Your task to perform on an android device: turn on bluetooth scan Image 0: 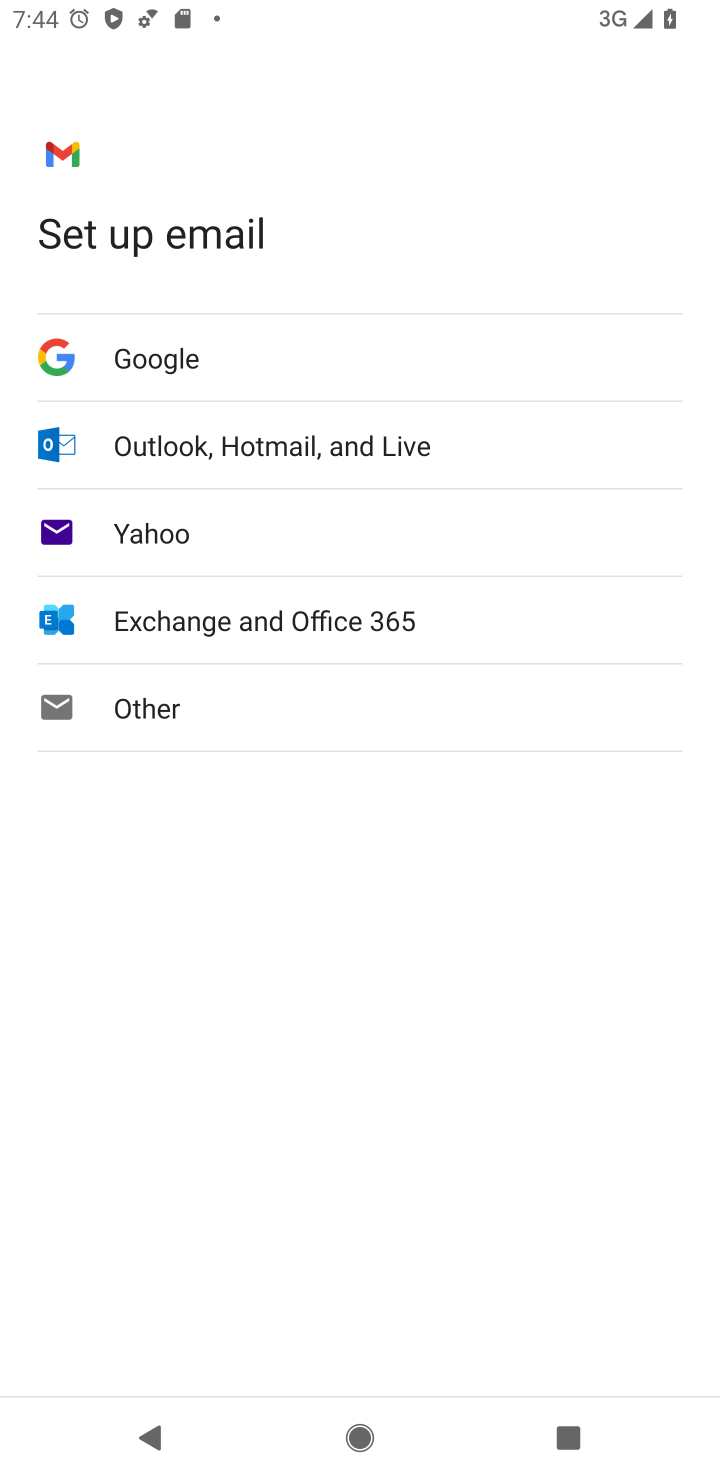
Step 0: press home button
Your task to perform on an android device: turn on bluetooth scan Image 1: 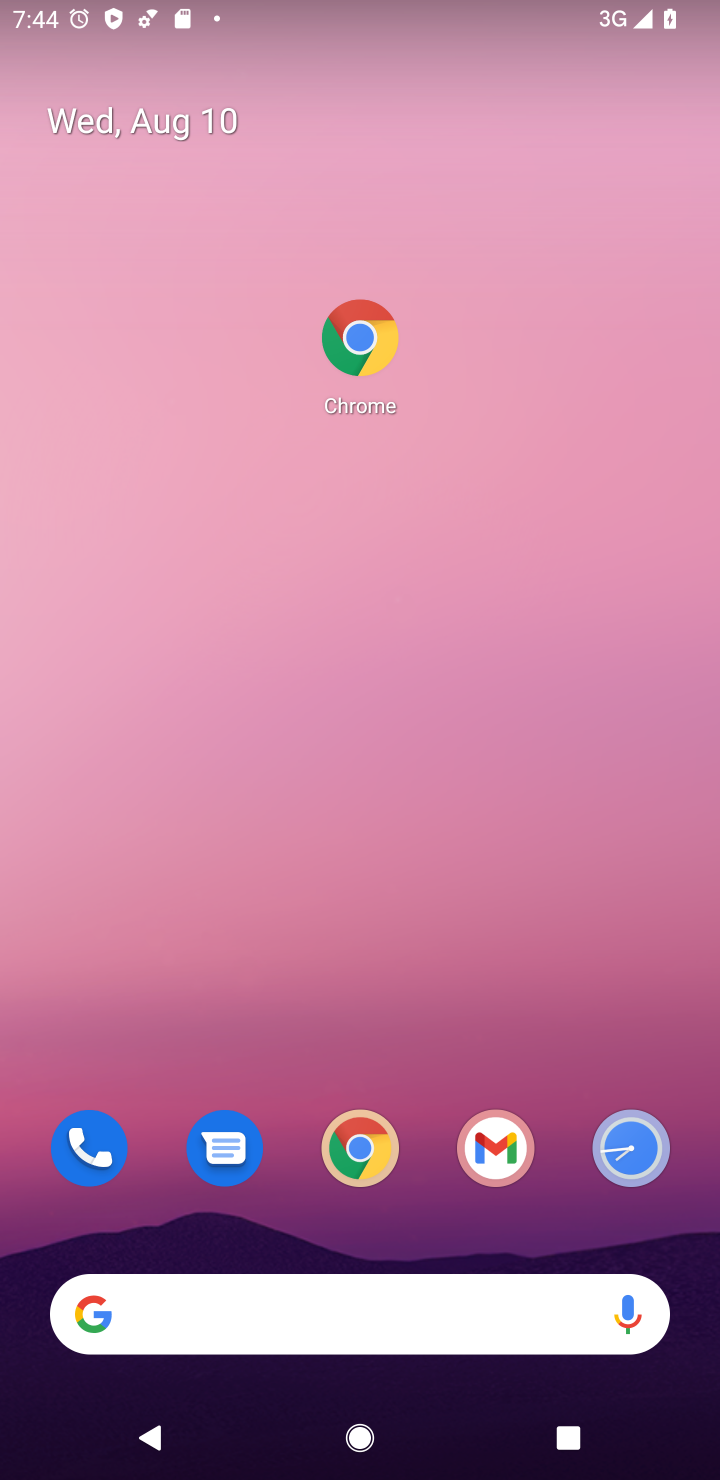
Step 1: drag from (279, 1246) to (361, 146)
Your task to perform on an android device: turn on bluetooth scan Image 2: 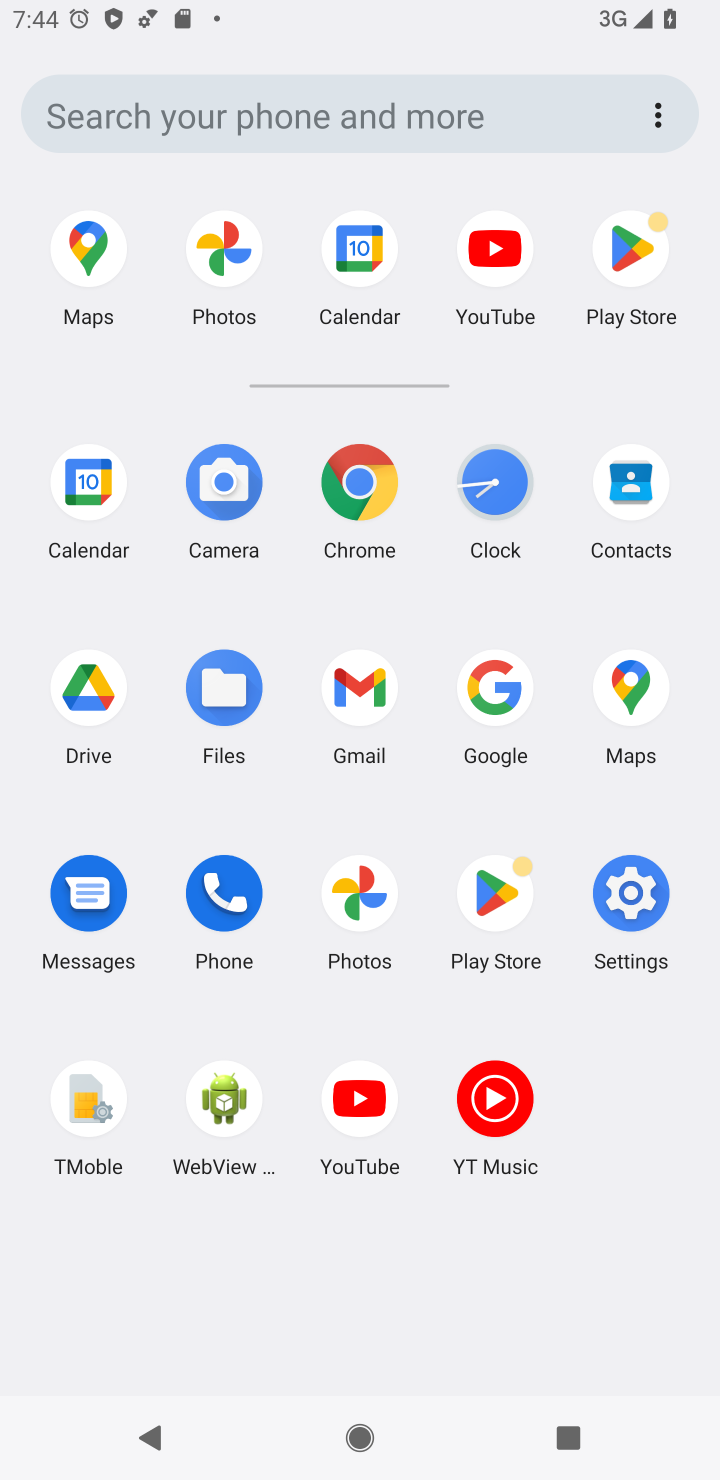
Step 2: click (634, 911)
Your task to perform on an android device: turn on bluetooth scan Image 3: 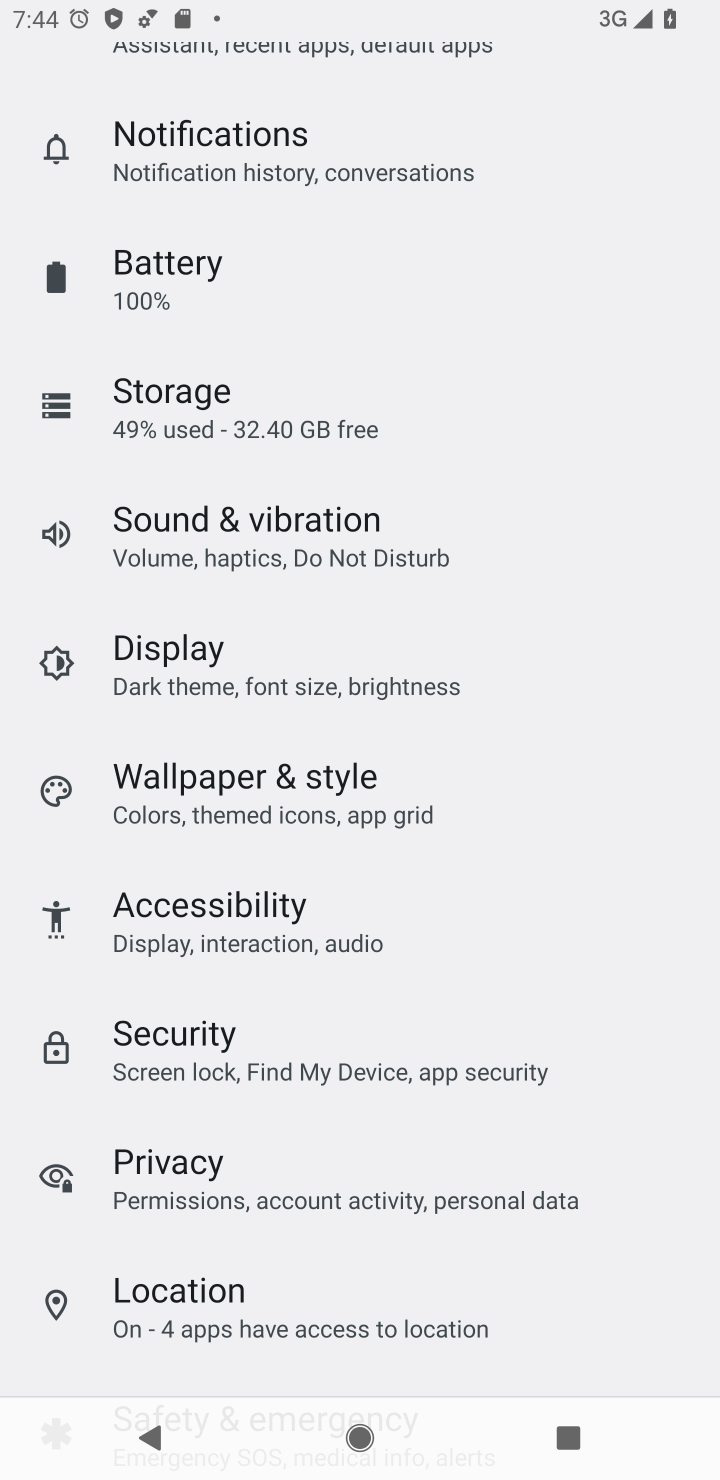
Step 3: drag from (406, 262) to (510, 1193)
Your task to perform on an android device: turn on bluetooth scan Image 4: 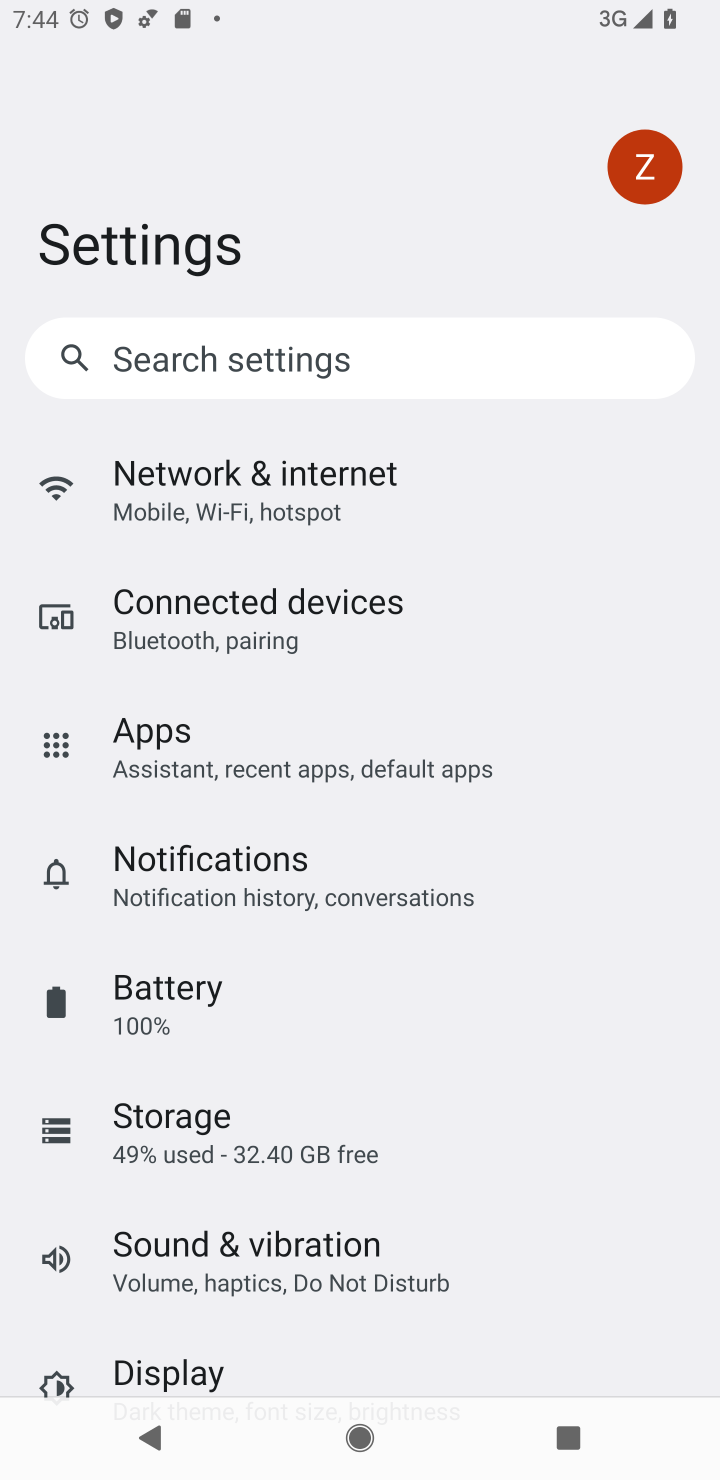
Step 4: click (239, 598)
Your task to perform on an android device: turn on bluetooth scan Image 5: 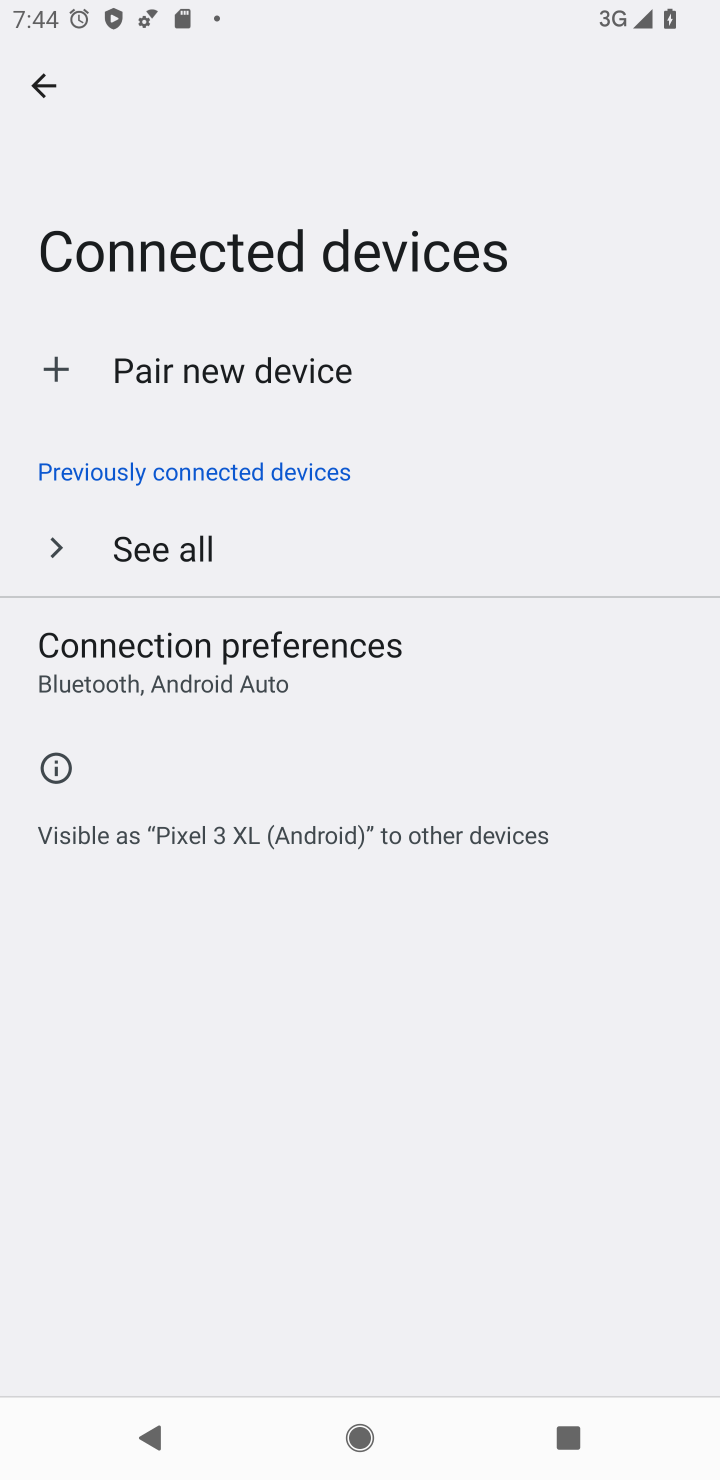
Step 5: click (28, 76)
Your task to perform on an android device: turn on bluetooth scan Image 6: 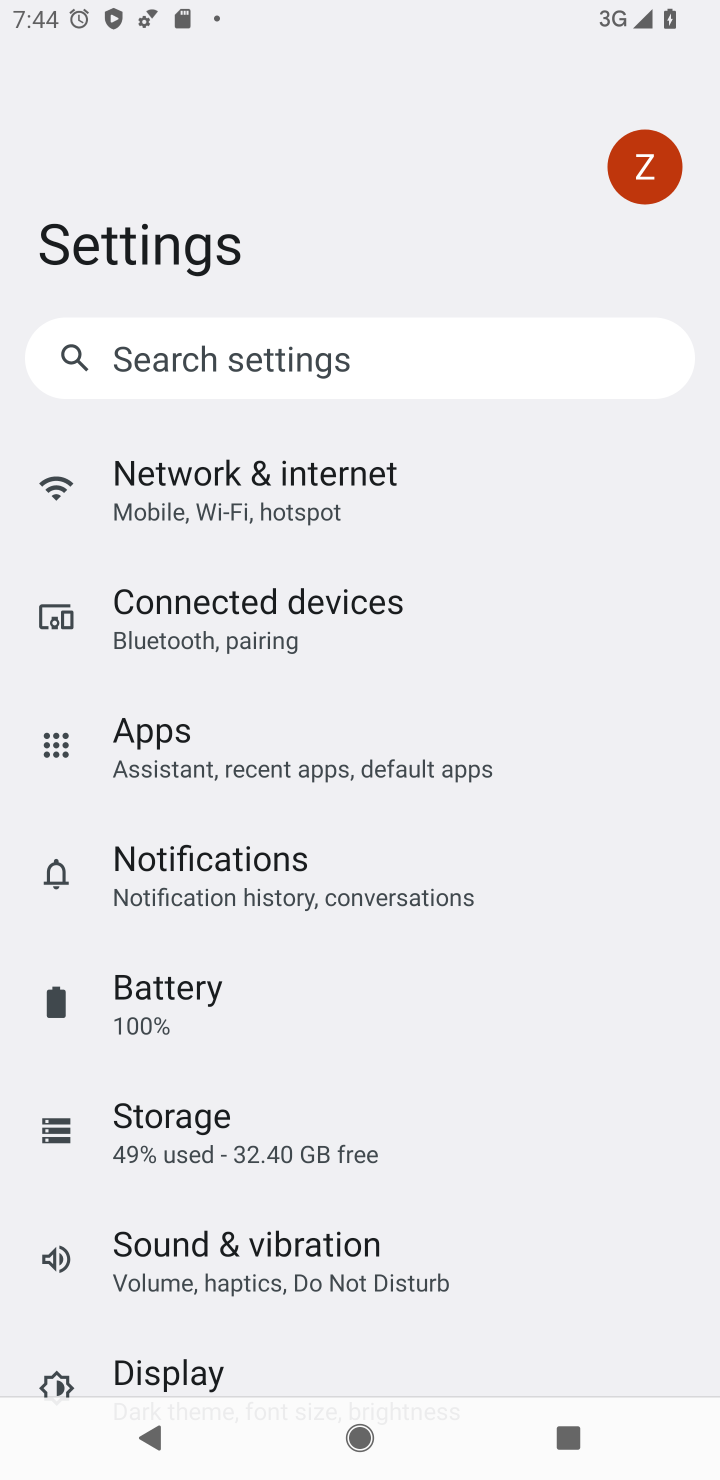
Step 6: click (275, 355)
Your task to perform on an android device: turn on bluetooth scan Image 7: 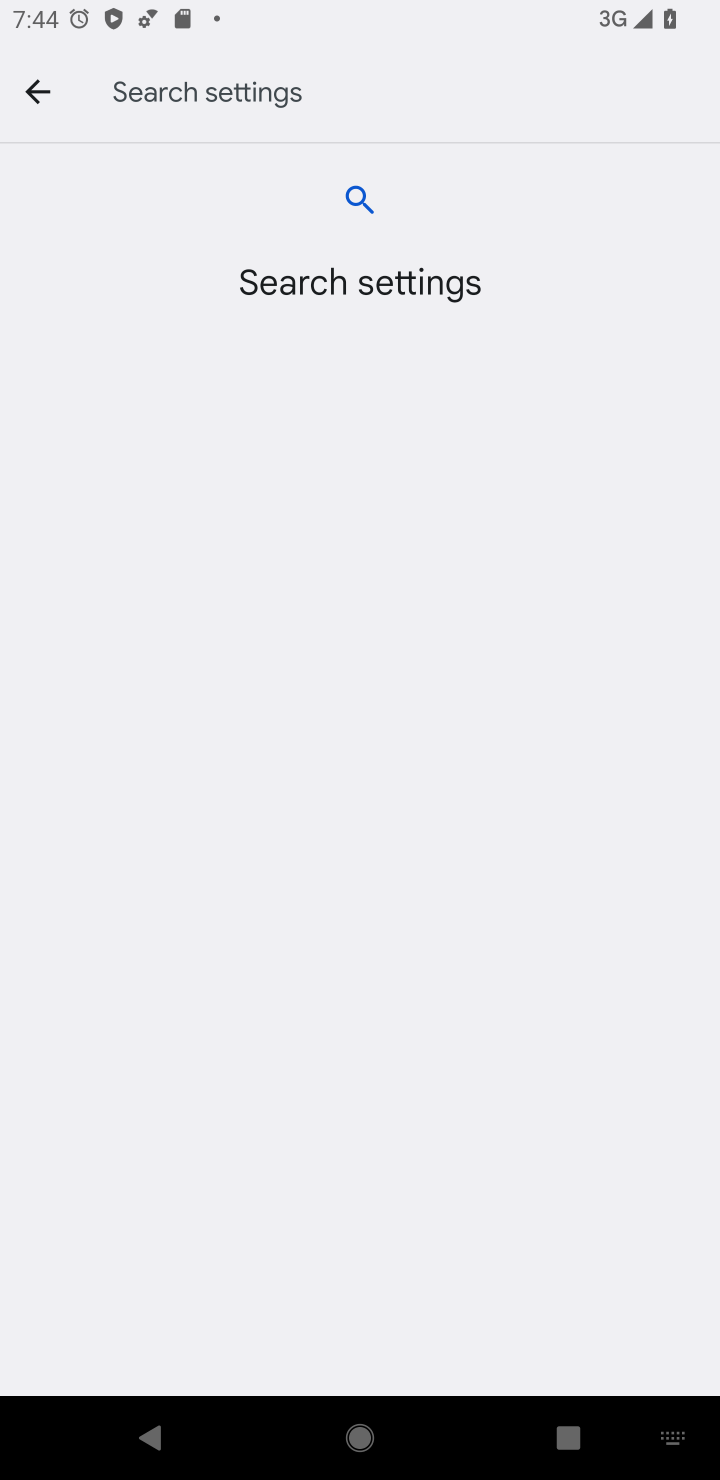
Step 7: type "bluetooth scan"
Your task to perform on an android device: turn on bluetooth scan Image 8: 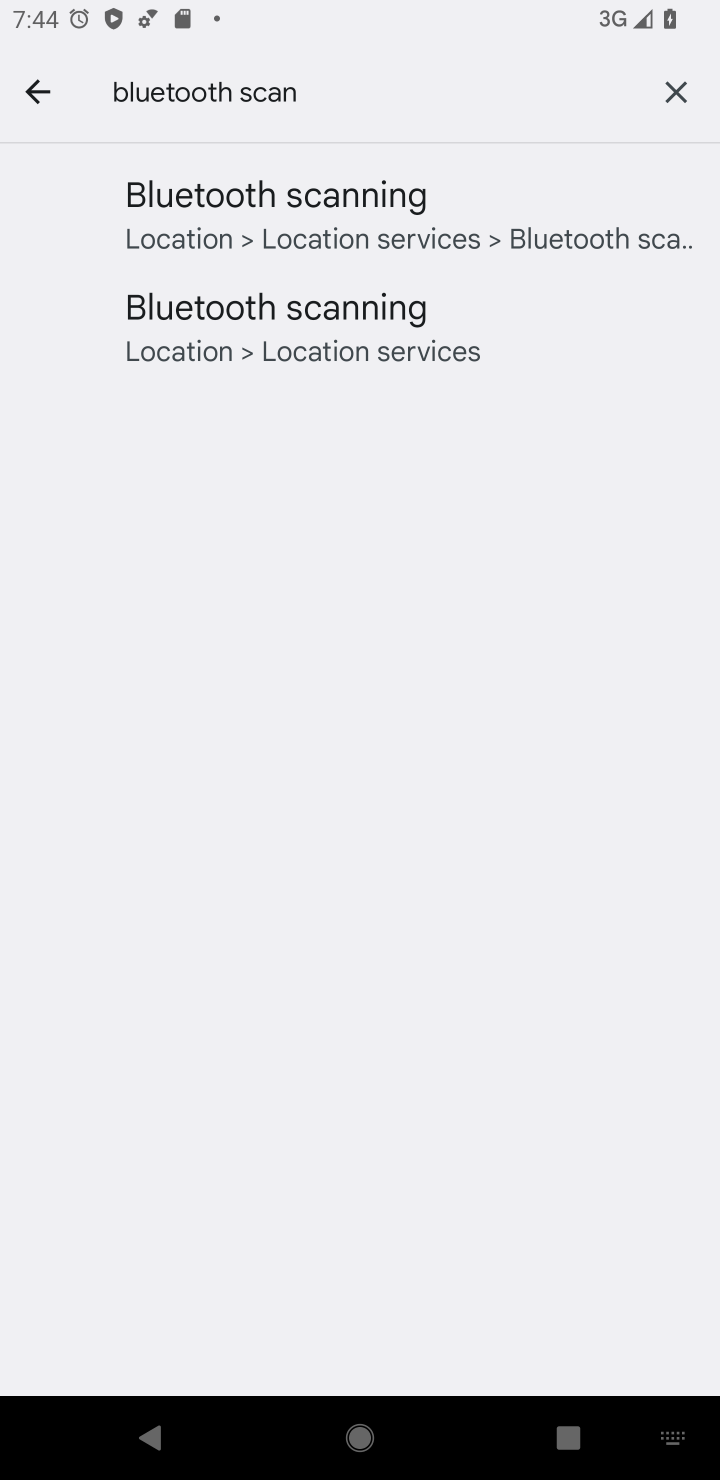
Step 8: click (367, 300)
Your task to perform on an android device: turn on bluetooth scan Image 9: 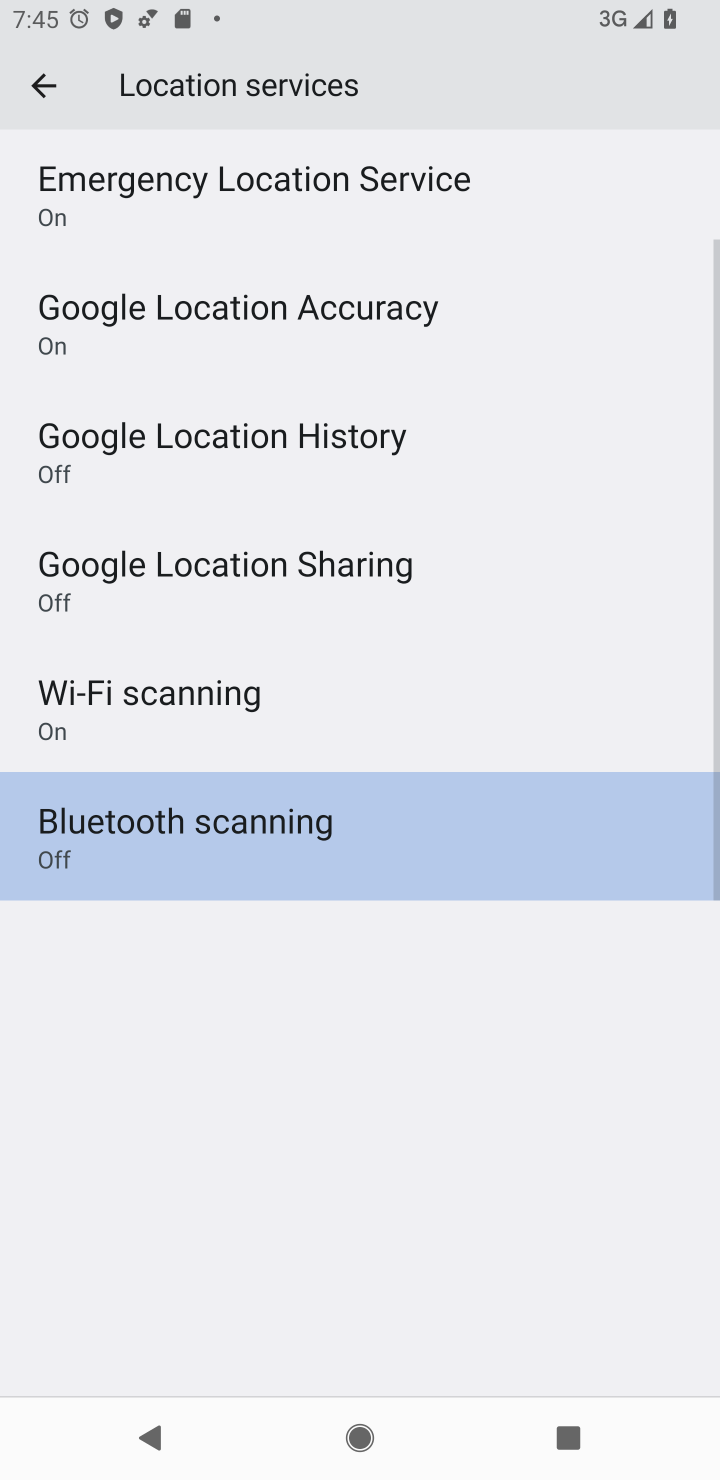
Step 9: click (198, 845)
Your task to perform on an android device: turn on bluetooth scan Image 10: 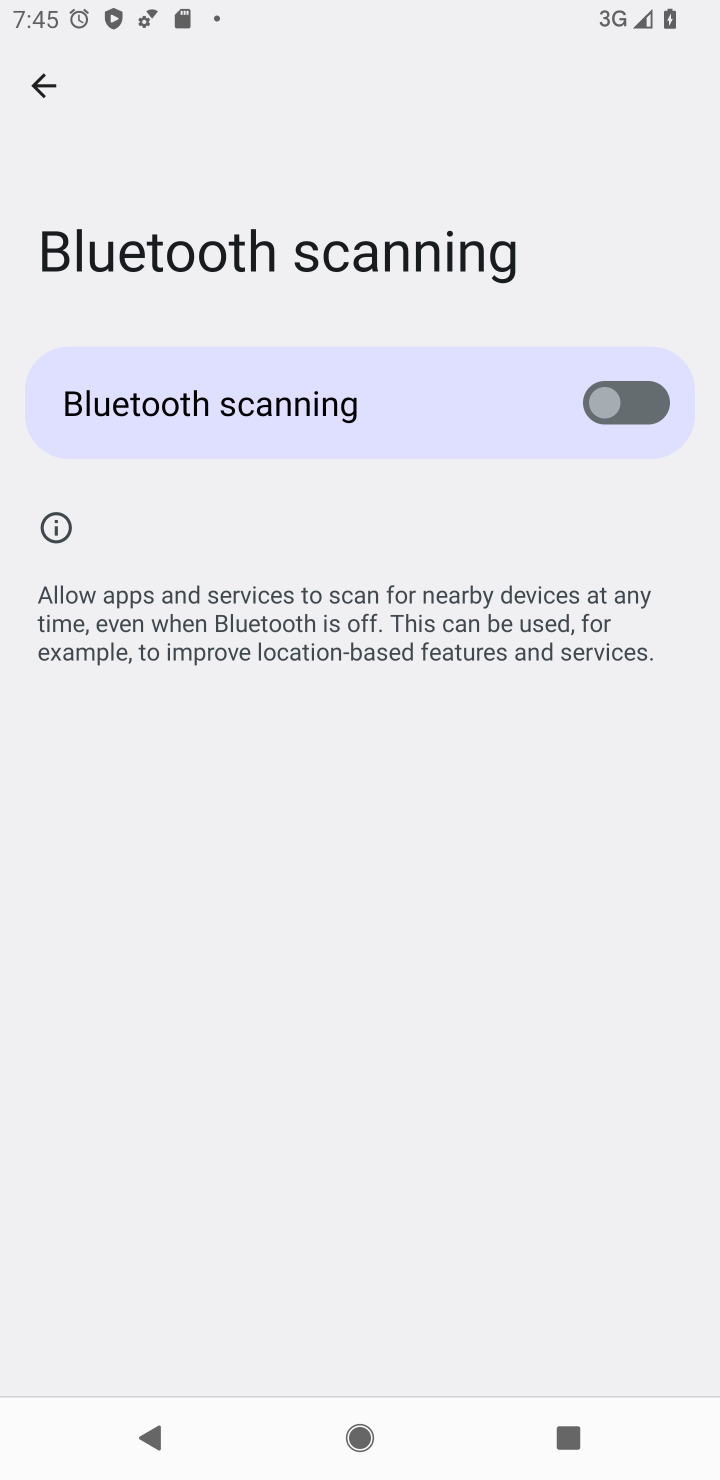
Step 10: click (616, 413)
Your task to perform on an android device: turn on bluetooth scan Image 11: 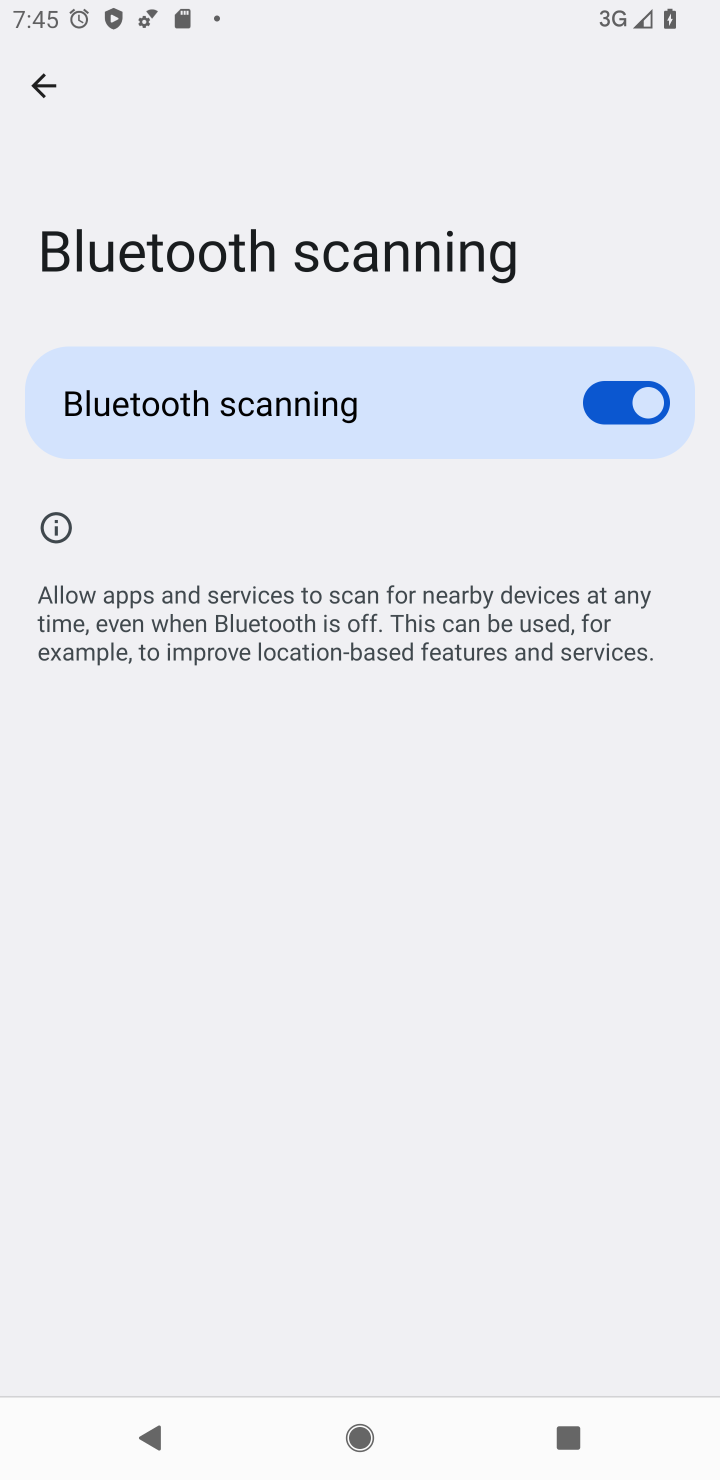
Step 11: task complete